Your task to perform on an android device: empty trash in google photos Image 0: 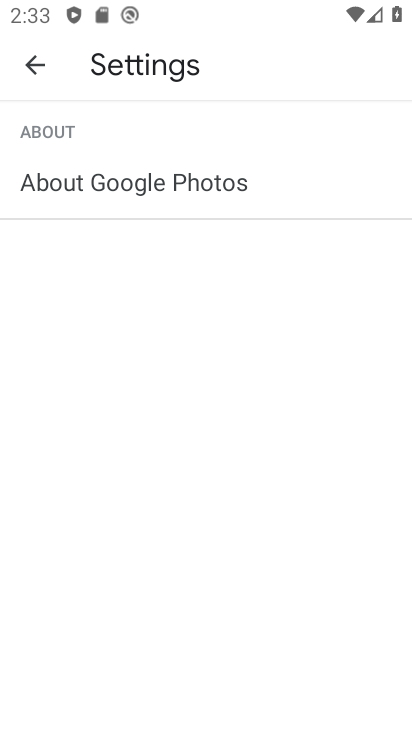
Step 0: press home button
Your task to perform on an android device: empty trash in google photos Image 1: 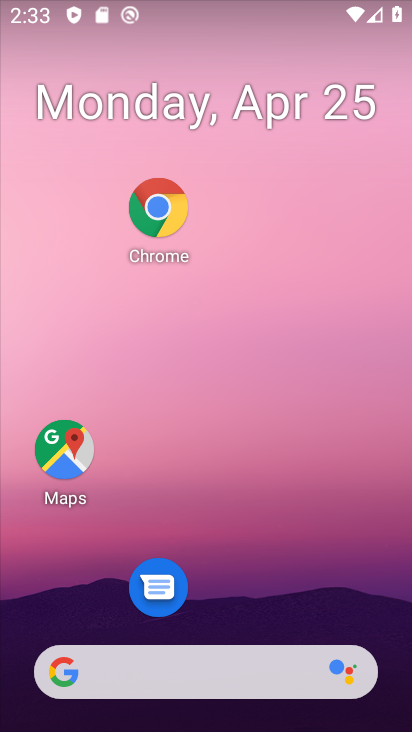
Step 1: drag from (284, 564) to (284, 70)
Your task to perform on an android device: empty trash in google photos Image 2: 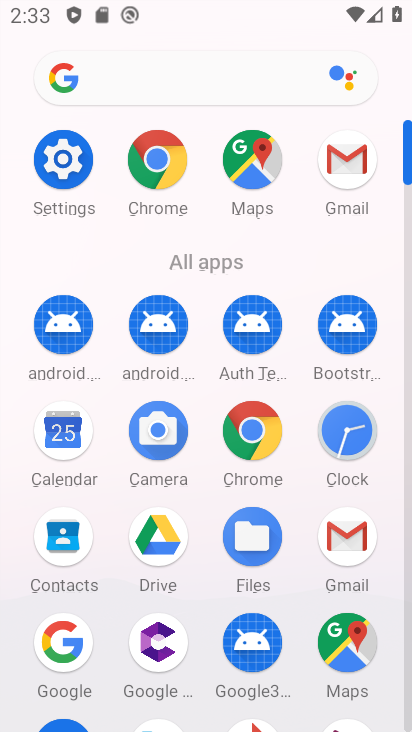
Step 2: click (406, 711)
Your task to perform on an android device: empty trash in google photos Image 3: 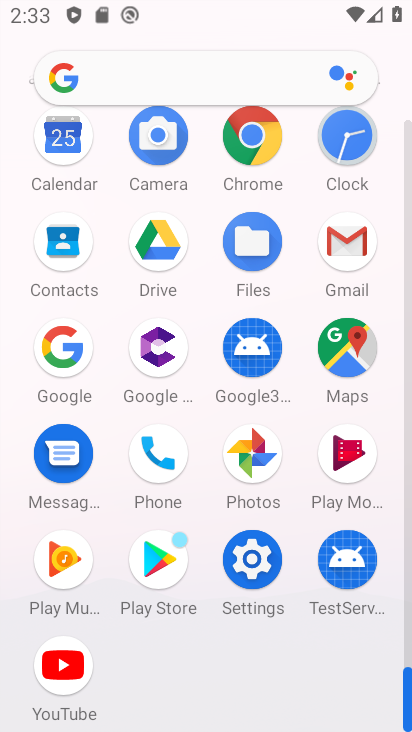
Step 3: click (230, 442)
Your task to perform on an android device: empty trash in google photos Image 4: 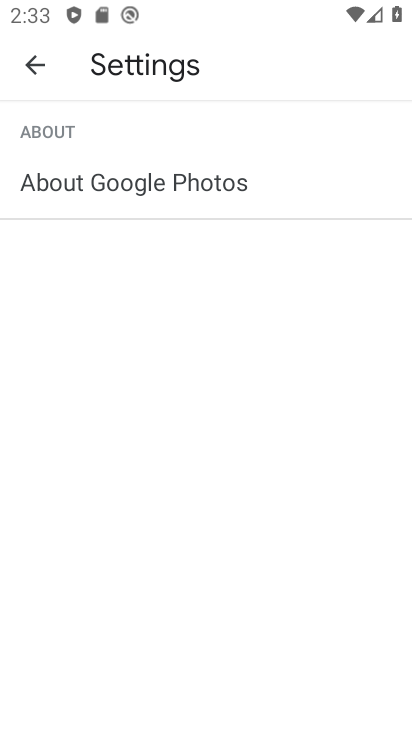
Step 4: click (25, 76)
Your task to perform on an android device: empty trash in google photos Image 5: 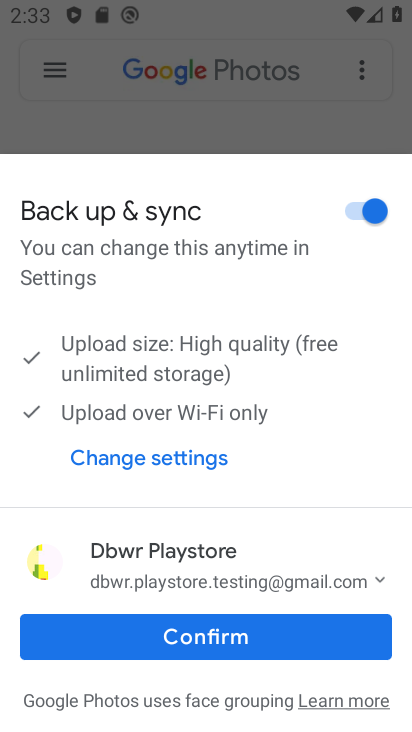
Step 5: click (237, 630)
Your task to perform on an android device: empty trash in google photos Image 6: 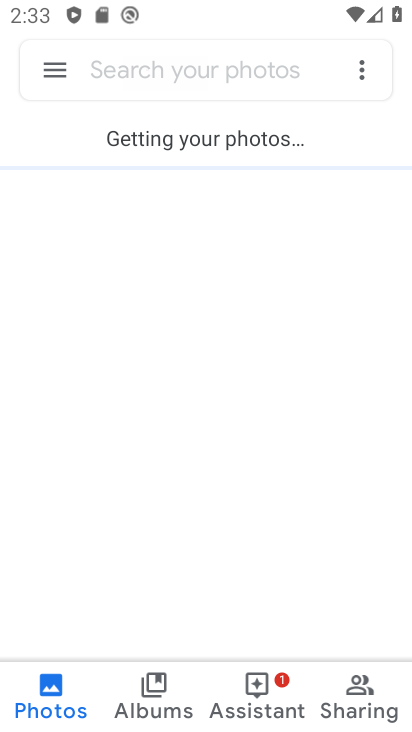
Step 6: click (58, 80)
Your task to perform on an android device: empty trash in google photos Image 7: 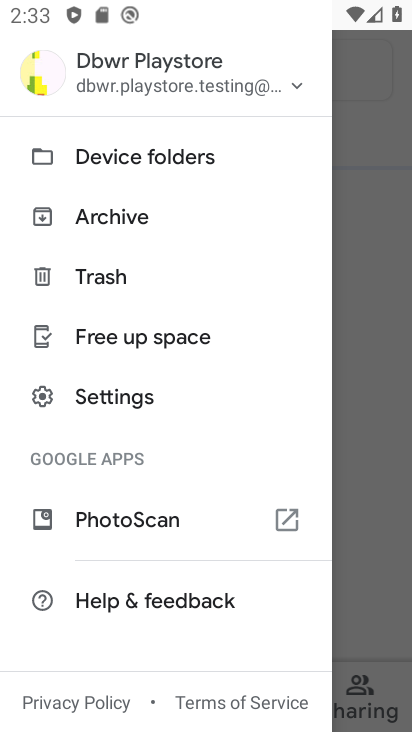
Step 7: click (116, 276)
Your task to perform on an android device: empty trash in google photos Image 8: 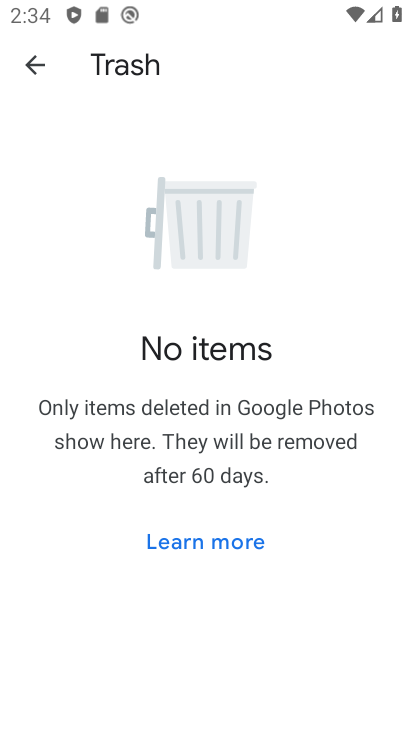
Step 8: task complete